Your task to perform on an android device: set an alarm Image 0: 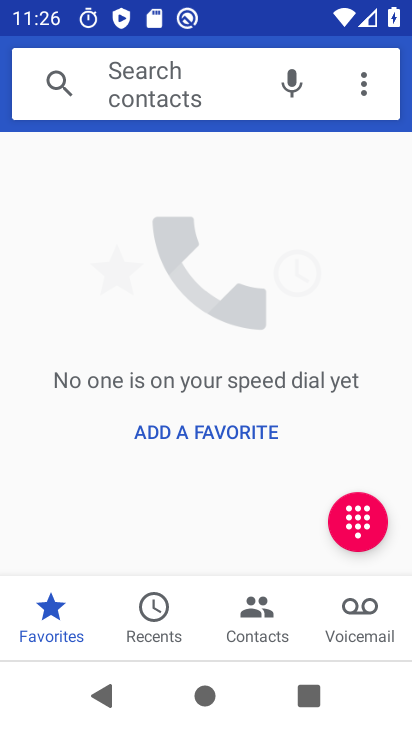
Step 0: press home button
Your task to perform on an android device: set an alarm Image 1: 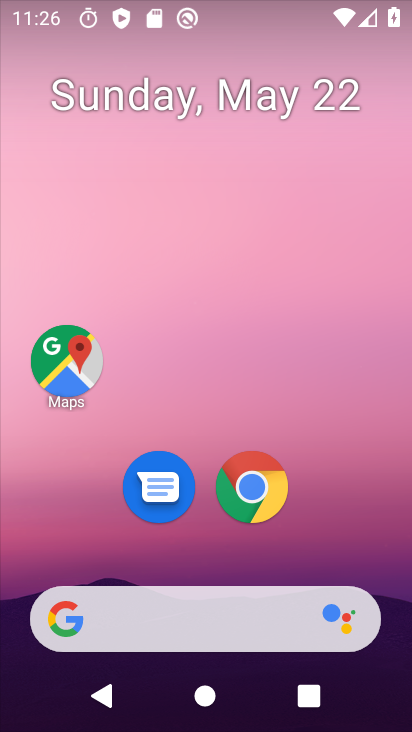
Step 1: drag from (364, 515) to (364, 234)
Your task to perform on an android device: set an alarm Image 2: 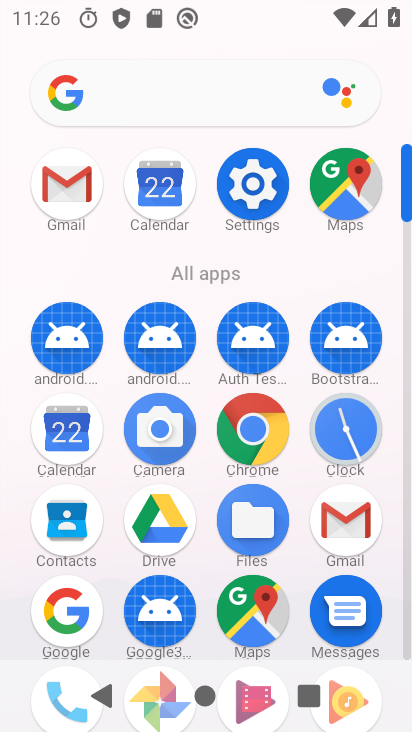
Step 2: click (340, 445)
Your task to perform on an android device: set an alarm Image 3: 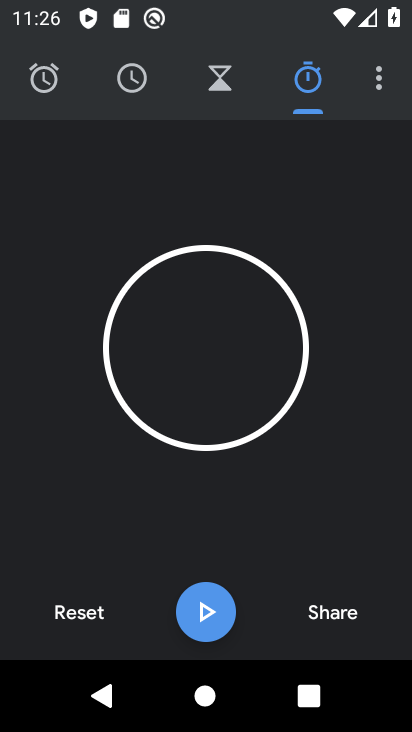
Step 3: click (41, 84)
Your task to perform on an android device: set an alarm Image 4: 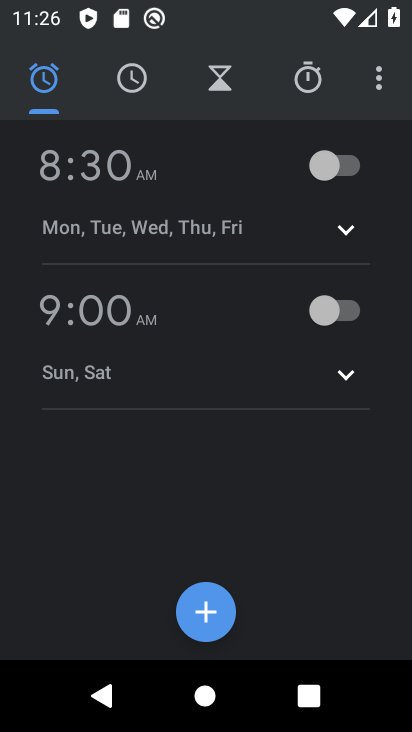
Step 4: click (218, 620)
Your task to perform on an android device: set an alarm Image 5: 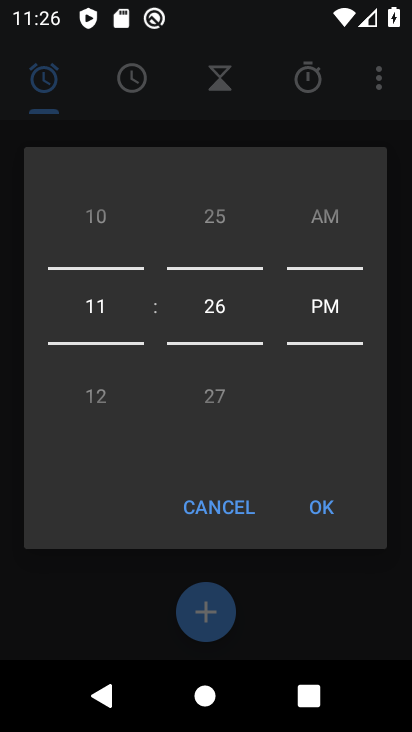
Step 5: click (325, 517)
Your task to perform on an android device: set an alarm Image 6: 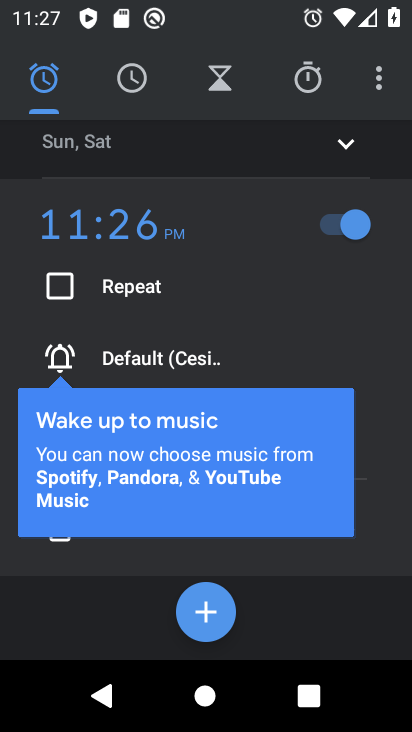
Step 6: task complete